Your task to perform on an android device: Go to ESPN.com Image 0: 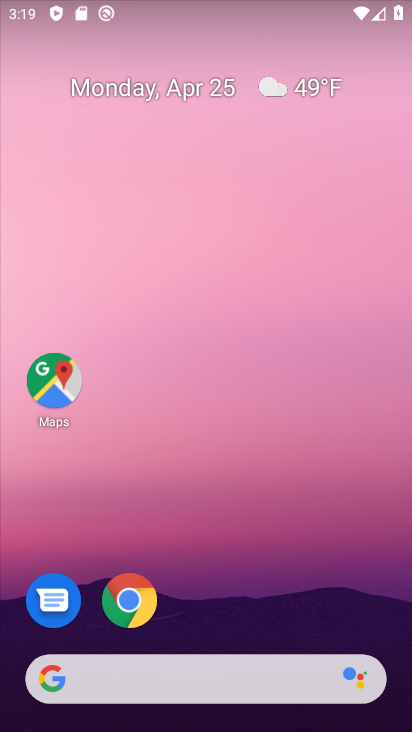
Step 0: click (269, 692)
Your task to perform on an android device: Go to ESPN.com Image 1: 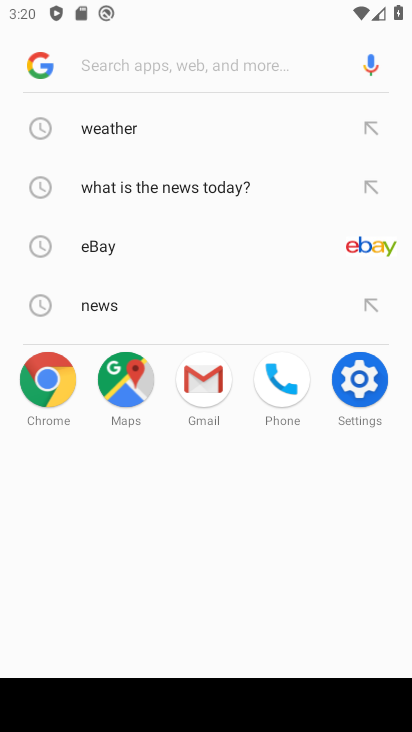
Step 1: type "espn.com"
Your task to perform on an android device: Go to ESPN.com Image 2: 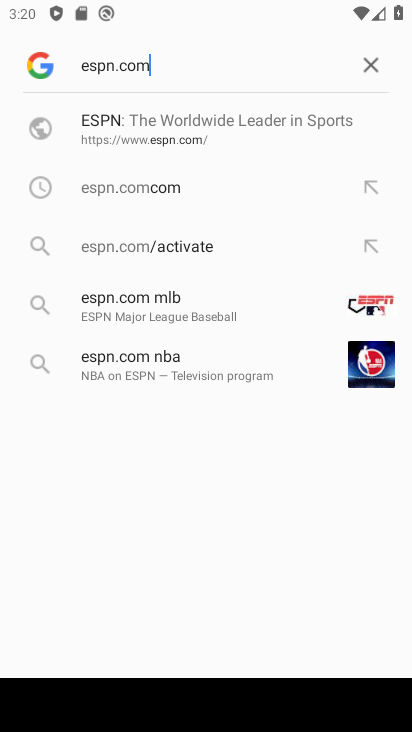
Step 2: click (207, 118)
Your task to perform on an android device: Go to ESPN.com Image 3: 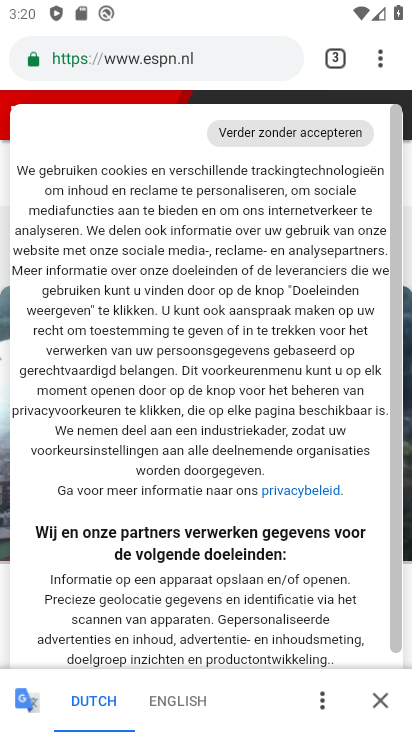
Step 3: task complete